Your task to perform on an android device: Is it going to rain tomorrow? Image 0: 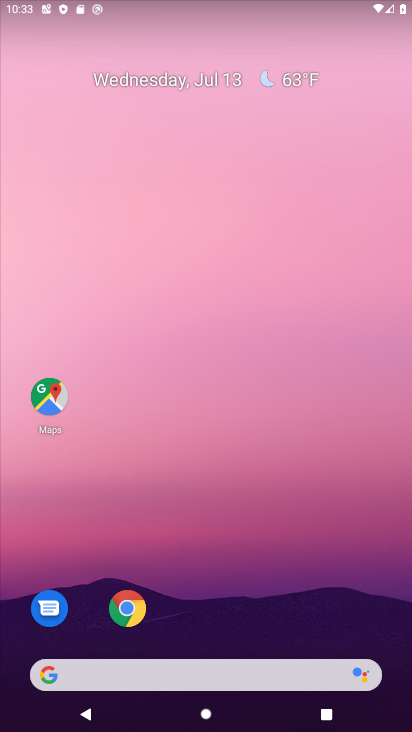
Step 0: drag from (209, 629) to (311, 98)
Your task to perform on an android device: Is it going to rain tomorrow? Image 1: 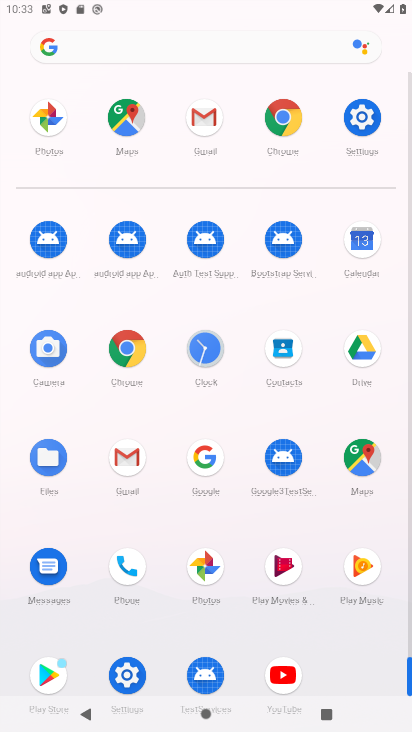
Step 1: click (128, 353)
Your task to perform on an android device: Is it going to rain tomorrow? Image 2: 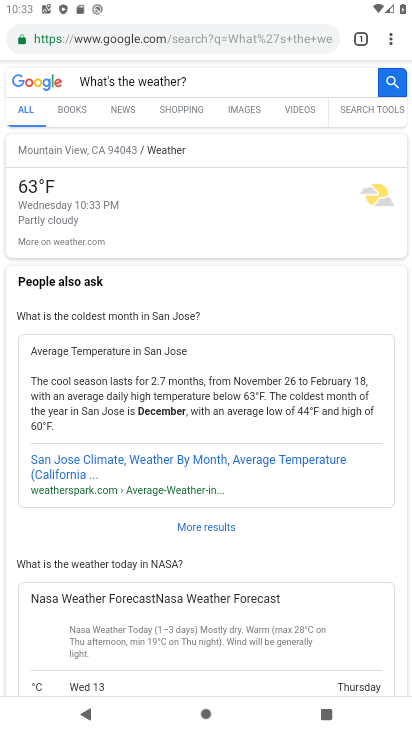
Step 2: click (207, 84)
Your task to perform on an android device: Is it going to rain tomorrow? Image 3: 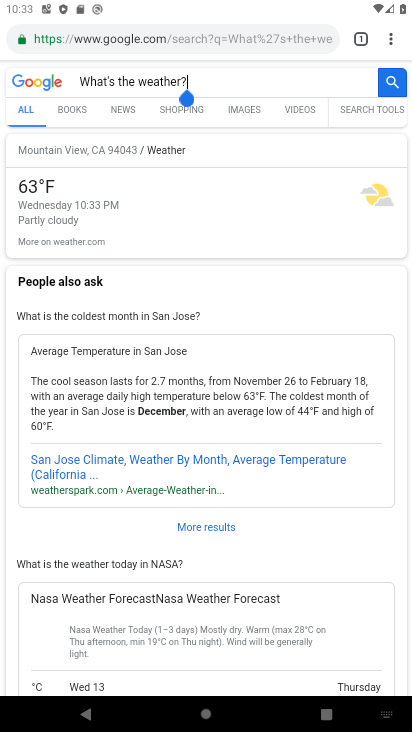
Step 3: click (200, 39)
Your task to perform on an android device: Is it going to rain tomorrow? Image 4: 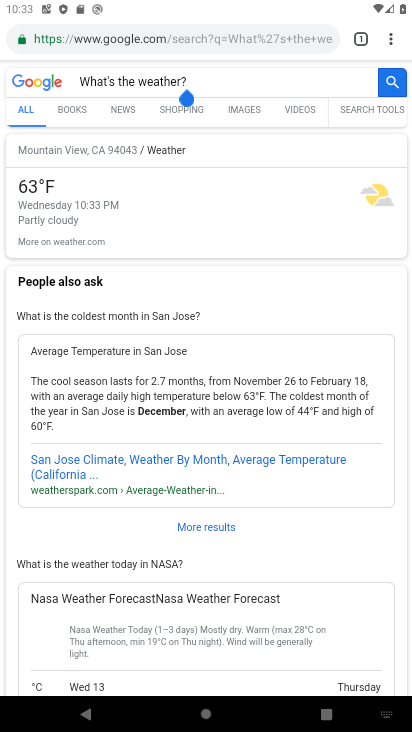
Step 4: click (200, 39)
Your task to perform on an android device: Is it going to rain tomorrow? Image 5: 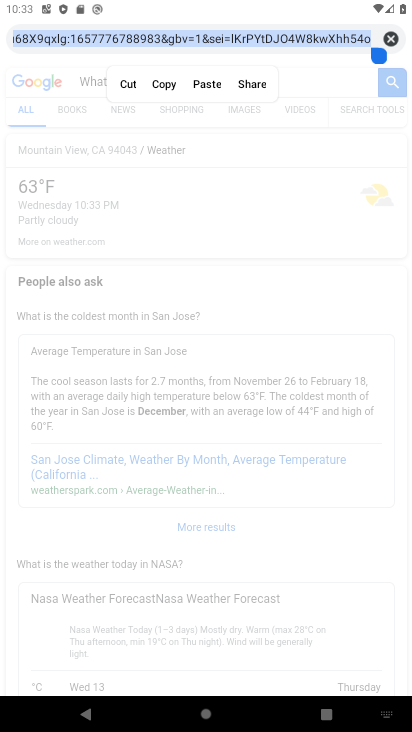
Step 5: click (386, 32)
Your task to perform on an android device: Is it going to rain tomorrow? Image 6: 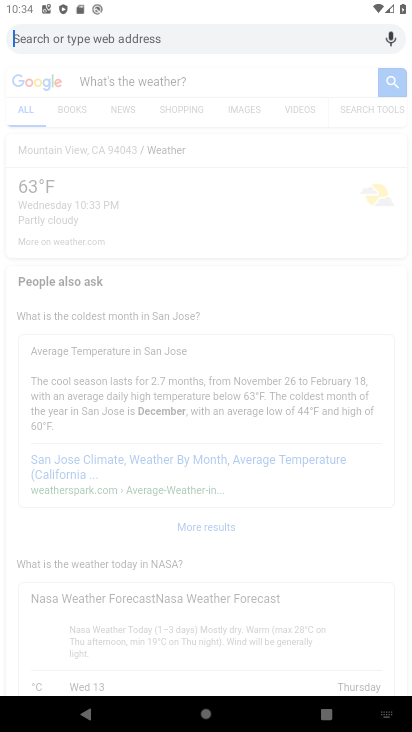
Step 6: type "Is it going to rain tomorrow?"
Your task to perform on an android device: Is it going to rain tomorrow? Image 7: 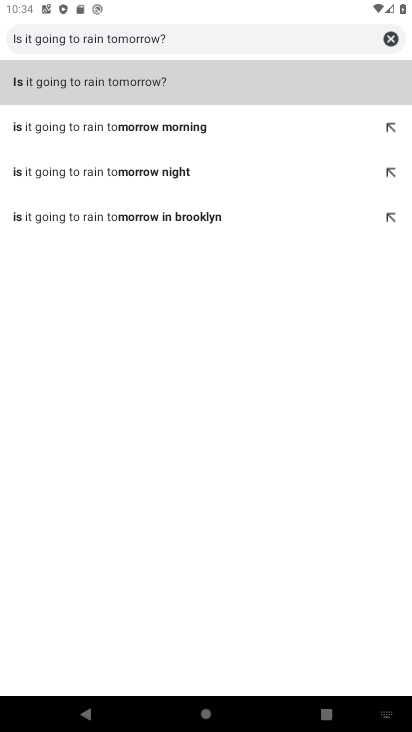
Step 7: click (120, 81)
Your task to perform on an android device: Is it going to rain tomorrow? Image 8: 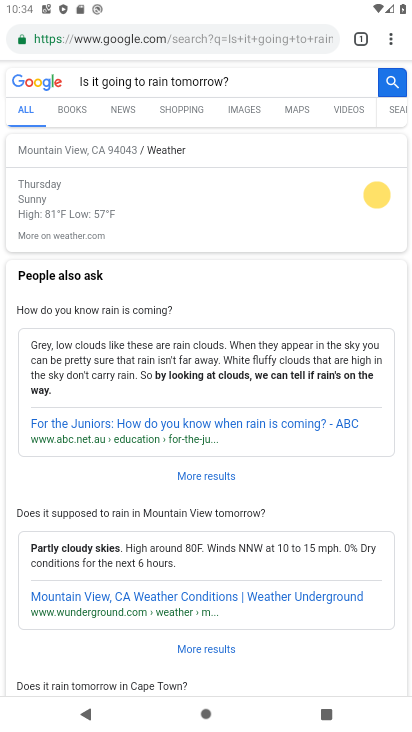
Step 8: task complete